Your task to perform on an android device: turn vacation reply on in the gmail app Image 0: 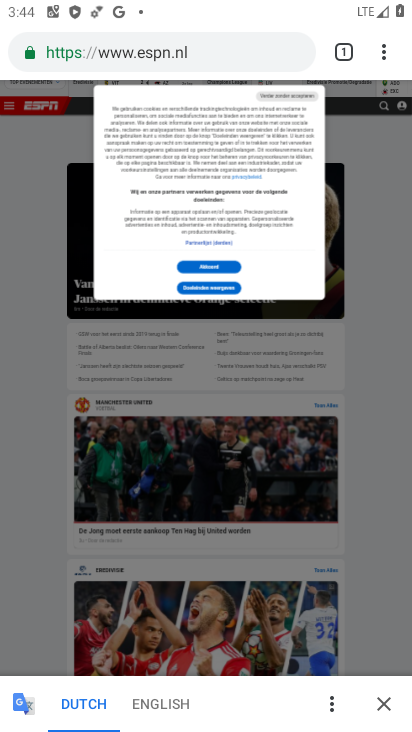
Step 0: press home button
Your task to perform on an android device: turn vacation reply on in the gmail app Image 1: 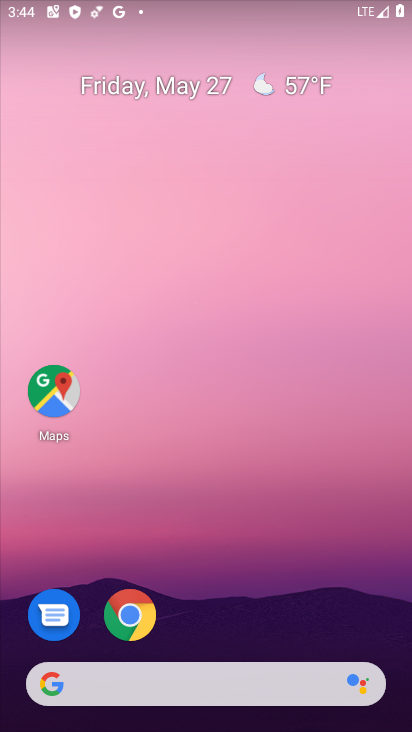
Step 1: drag from (239, 627) to (246, 64)
Your task to perform on an android device: turn vacation reply on in the gmail app Image 2: 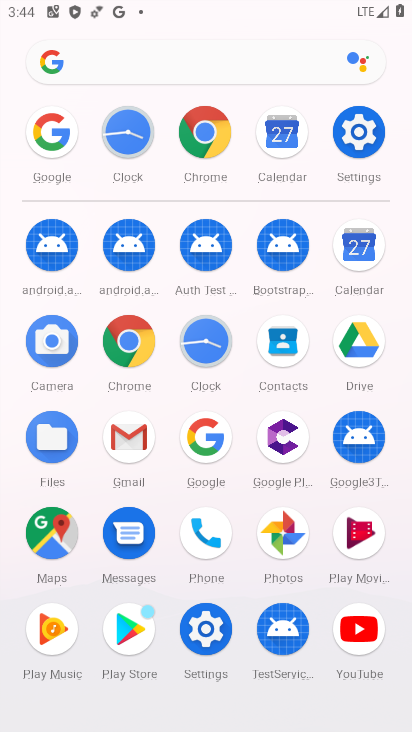
Step 2: click (121, 446)
Your task to perform on an android device: turn vacation reply on in the gmail app Image 3: 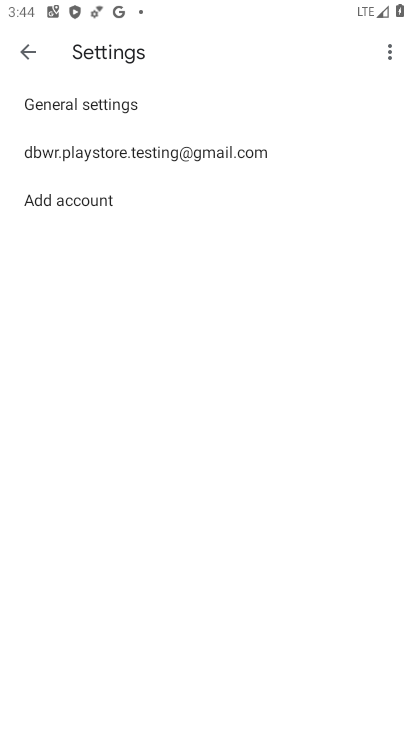
Step 3: click (116, 156)
Your task to perform on an android device: turn vacation reply on in the gmail app Image 4: 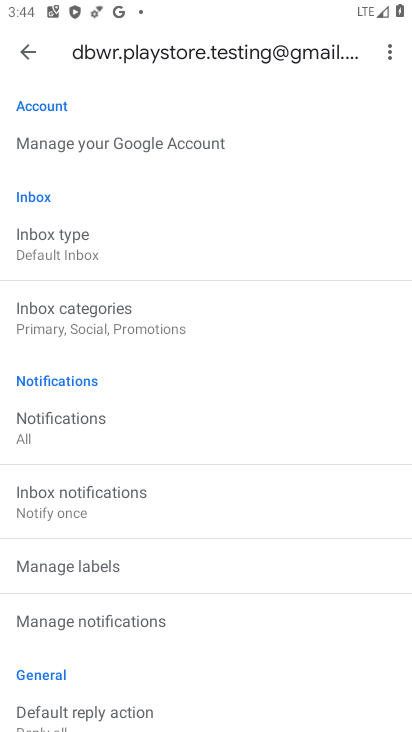
Step 4: drag from (148, 645) to (169, 99)
Your task to perform on an android device: turn vacation reply on in the gmail app Image 5: 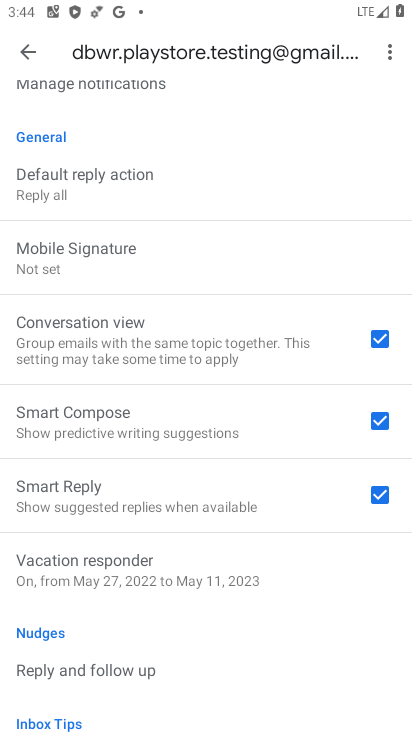
Step 5: click (119, 577)
Your task to perform on an android device: turn vacation reply on in the gmail app Image 6: 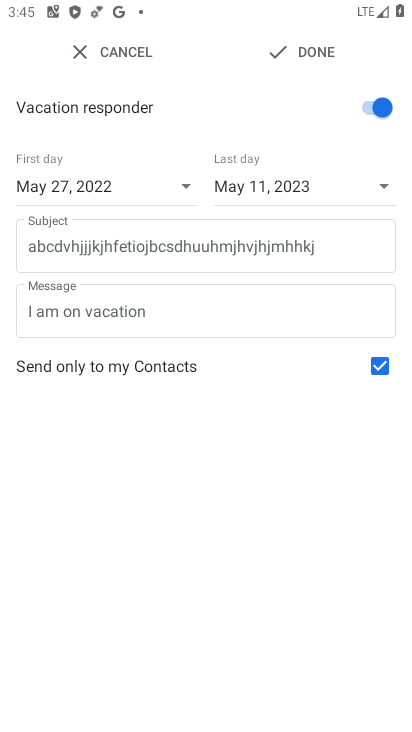
Step 6: task complete